Your task to perform on an android device: change your default location settings in chrome Image 0: 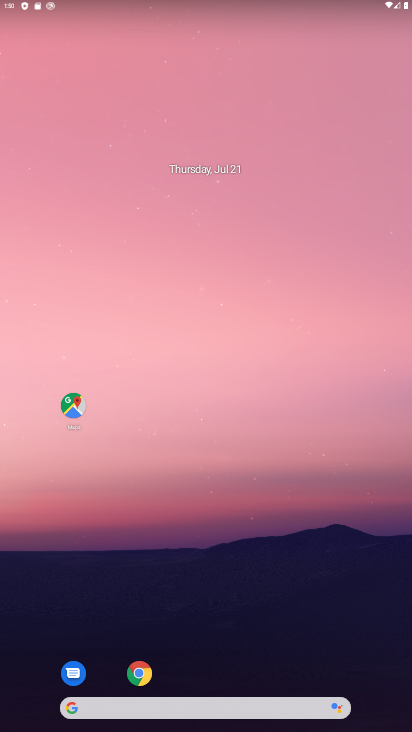
Step 0: click (139, 674)
Your task to perform on an android device: change your default location settings in chrome Image 1: 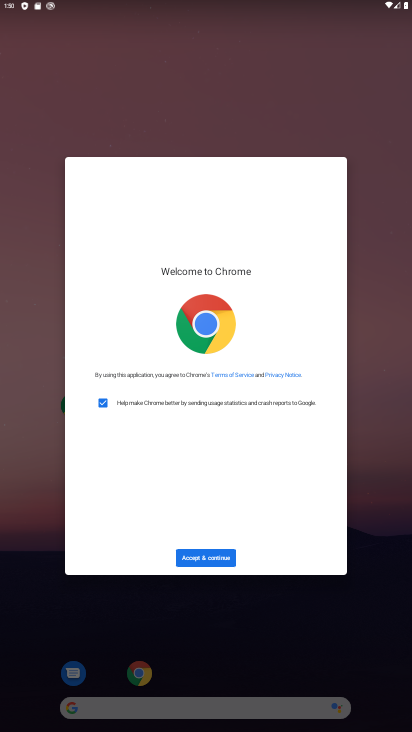
Step 1: click (193, 555)
Your task to perform on an android device: change your default location settings in chrome Image 2: 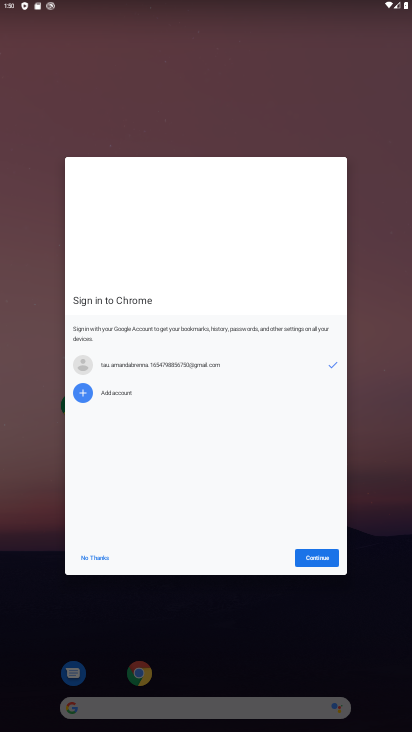
Step 2: click (319, 561)
Your task to perform on an android device: change your default location settings in chrome Image 3: 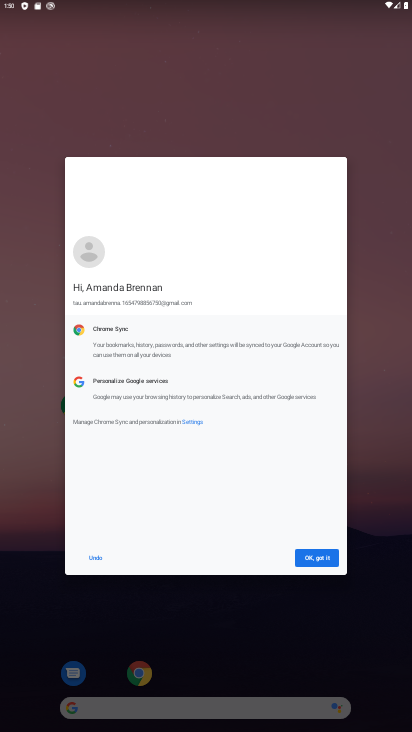
Step 3: click (319, 561)
Your task to perform on an android device: change your default location settings in chrome Image 4: 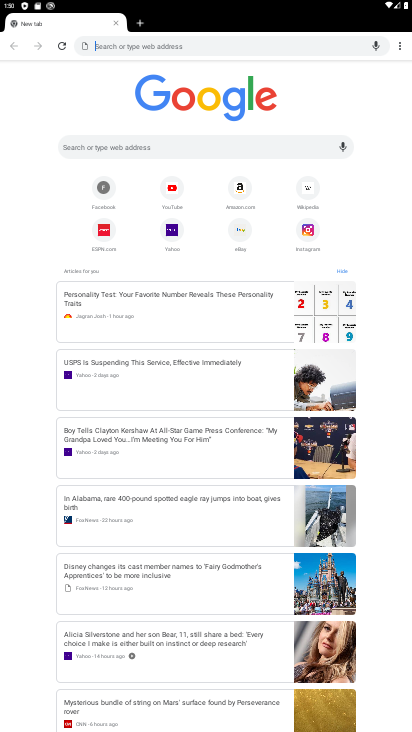
Step 4: click (399, 45)
Your task to perform on an android device: change your default location settings in chrome Image 5: 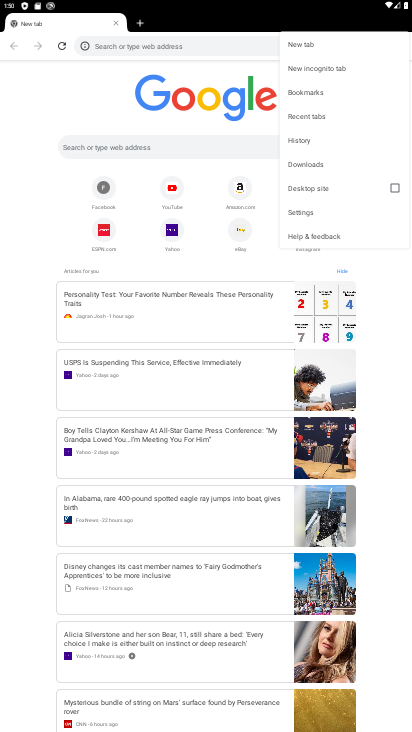
Step 5: click (310, 215)
Your task to perform on an android device: change your default location settings in chrome Image 6: 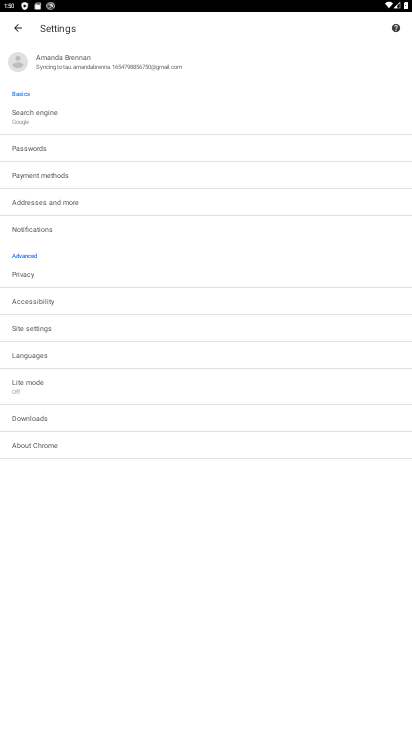
Step 6: click (38, 328)
Your task to perform on an android device: change your default location settings in chrome Image 7: 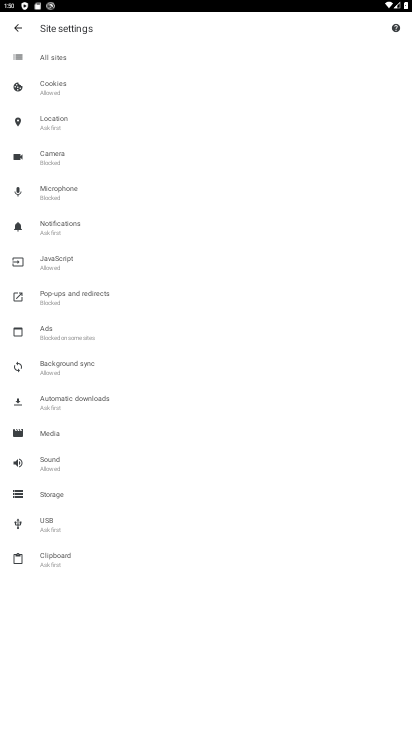
Step 7: click (60, 129)
Your task to perform on an android device: change your default location settings in chrome Image 8: 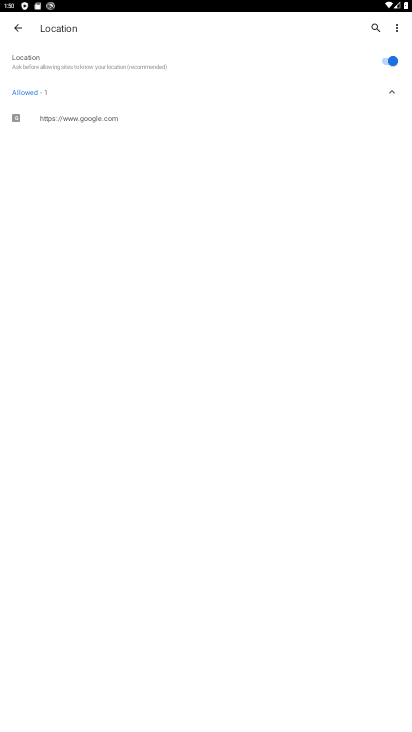
Step 8: click (392, 61)
Your task to perform on an android device: change your default location settings in chrome Image 9: 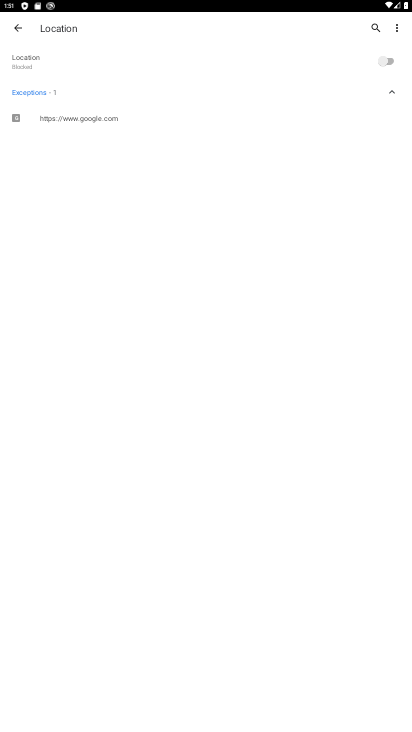
Step 9: task complete